Your task to perform on an android device: turn off smart reply in the gmail app Image 0: 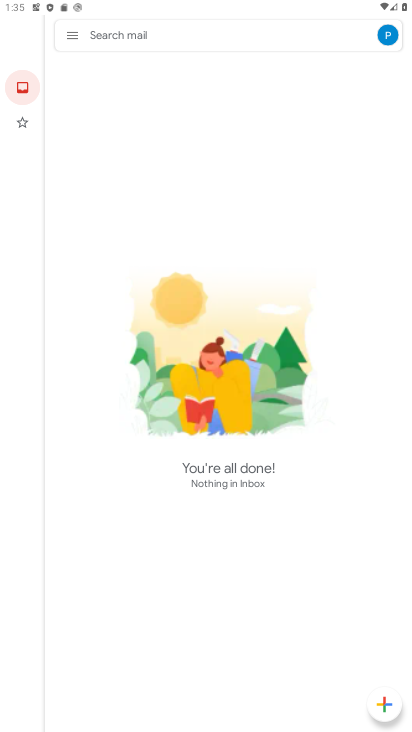
Step 0: press home button
Your task to perform on an android device: turn off smart reply in the gmail app Image 1: 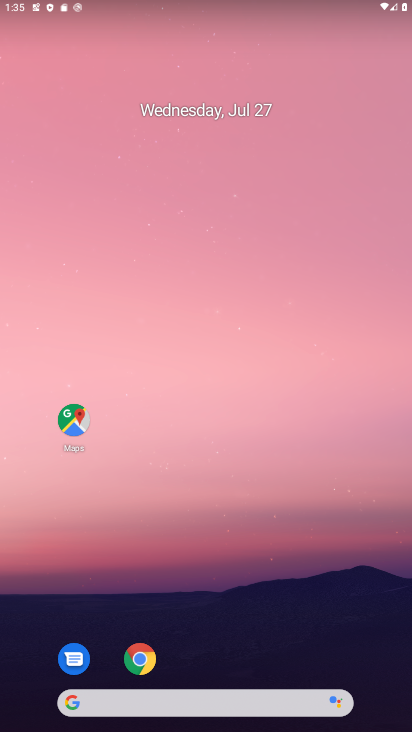
Step 1: drag from (293, 537) to (134, 55)
Your task to perform on an android device: turn off smart reply in the gmail app Image 2: 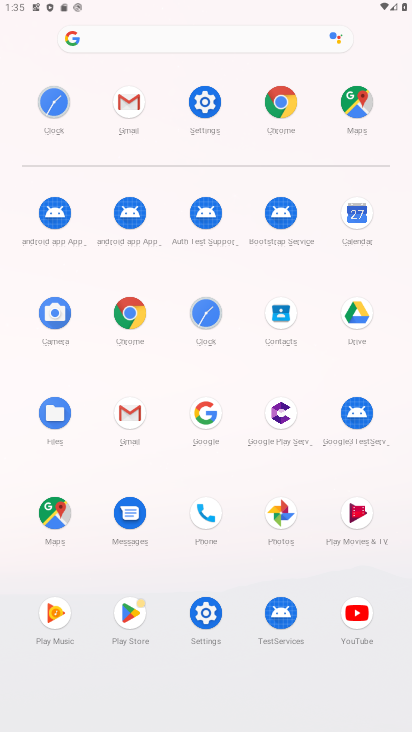
Step 2: click (135, 106)
Your task to perform on an android device: turn off smart reply in the gmail app Image 3: 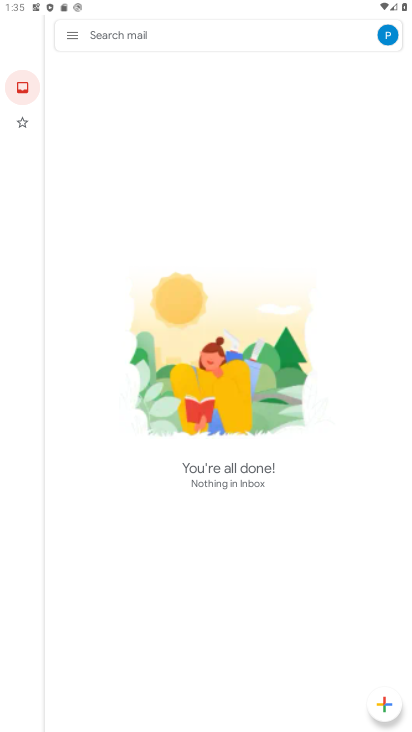
Step 3: click (72, 40)
Your task to perform on an android device: turn off smart reply in the gmail app Image 4: 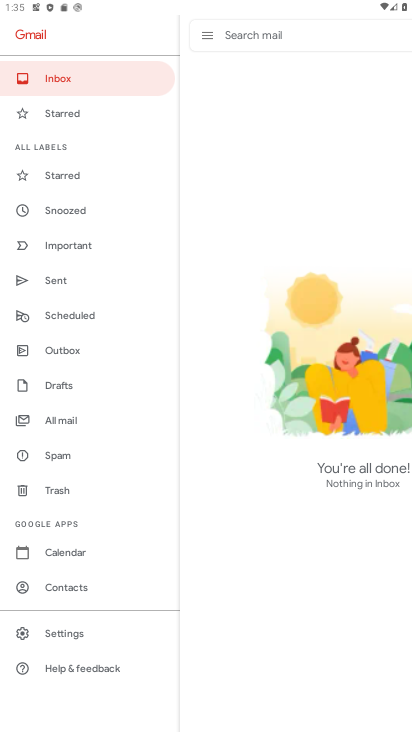
Step 4: click (56, 630)
Your task to perform on an android device: turn off smart reply in the gmail app Image 5: 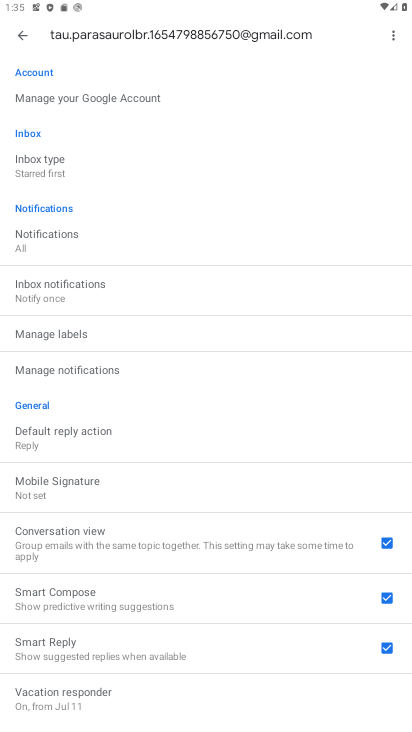
Step 5: click (387, 651)
Your task to perform on an android device: turn off smart reply in the gmail app Image 6: 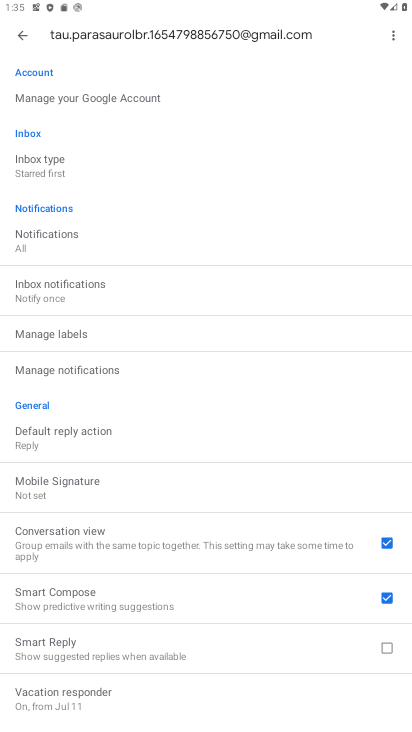
Step 6: task complete